Your task to perform on an android device: Open Google Image 0: 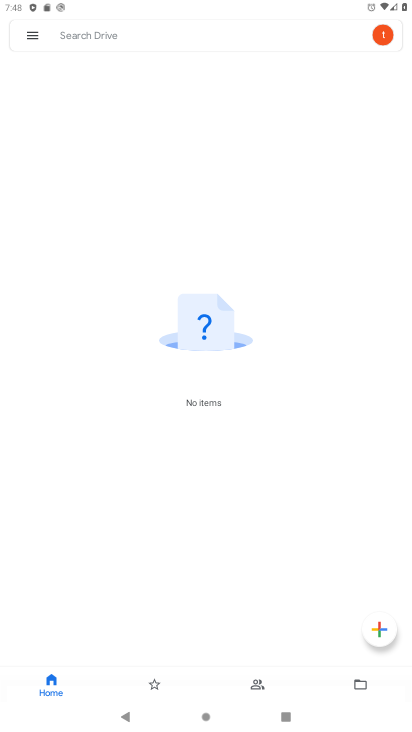
Step 0: press home button
Your task to perform on an android device: Open Google Image 1: 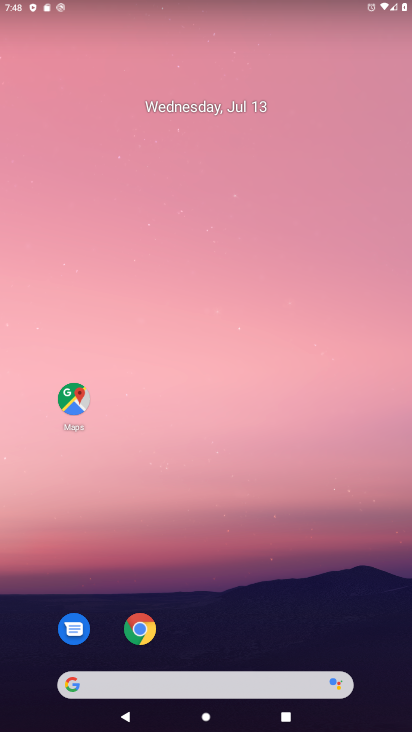
Step 1: click (115, 679)
Your task to perform on an android device: Open Google Image 2: 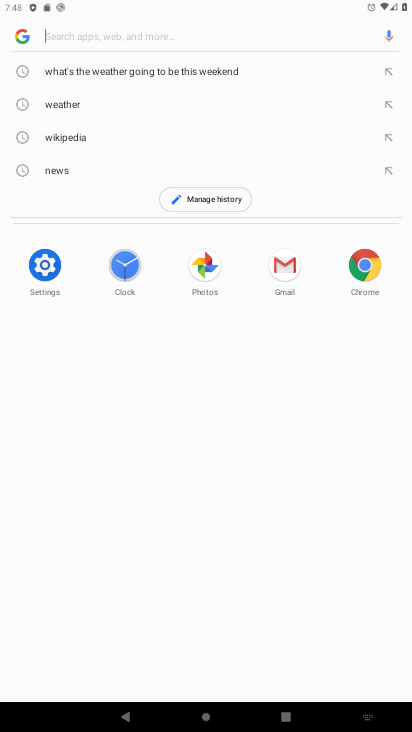
Step 2: task complete